Your task to perform on an android device: read, delete, or share a saved page in the chrome app Image 0: 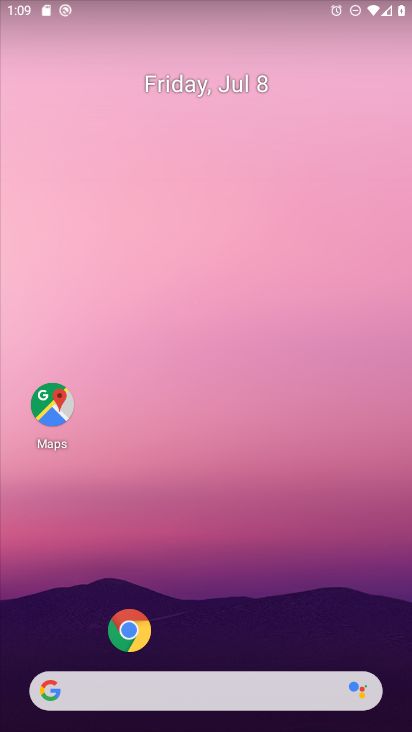
Step 0: drag from (238, 647) to (202, 241)
Your task to perform on an android device: read, delete, or share a saved page in the chrome app Image 1: 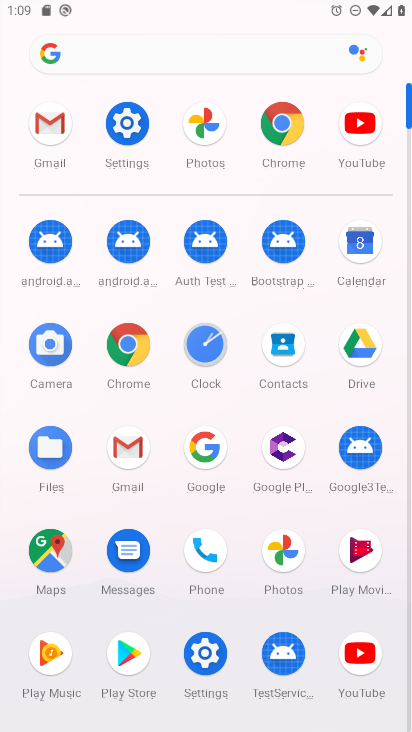
Step 1: click (125, 339)
Your task to perform on an android device: read, delete, or share a saved page in the chrome app Image 2: 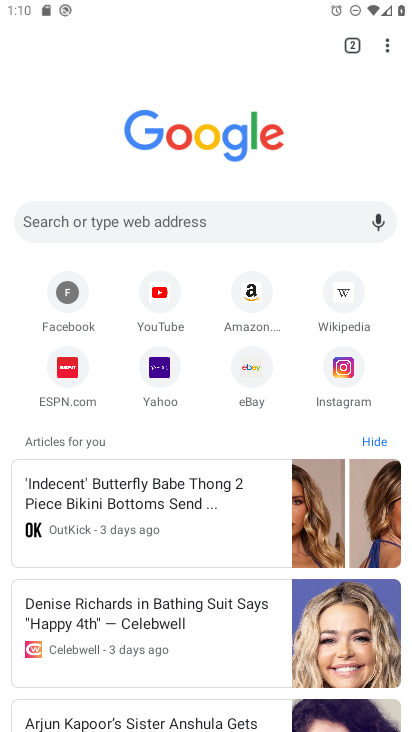
Step 2: click (389, 45)
Your task to perform on an android device: read, delete, or share a saved page in the chrome app Image 3: 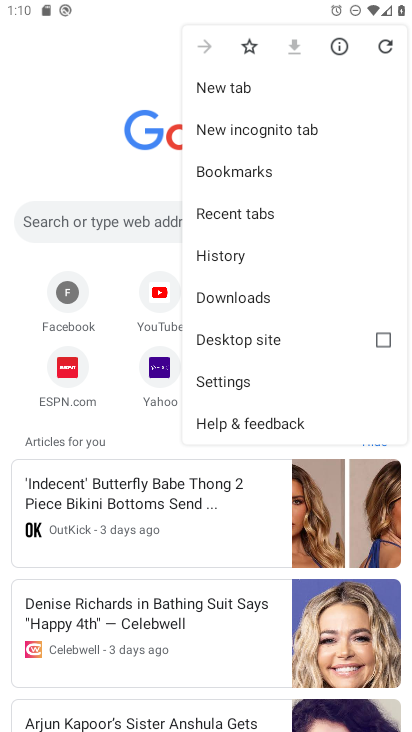
Step 3: click (261, 214)
Your task to perform on an android device: read, delete, or share a saved page in the chrome app Image 4: 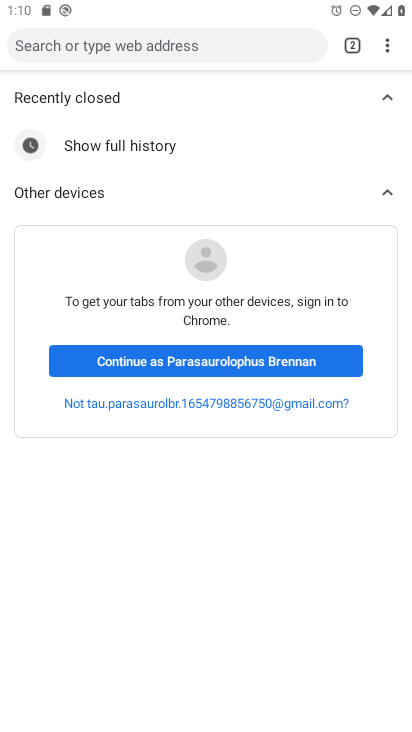
Step 4: task complete